Your task to perform on an android device: turn on data saver in the chrome app Image 0: 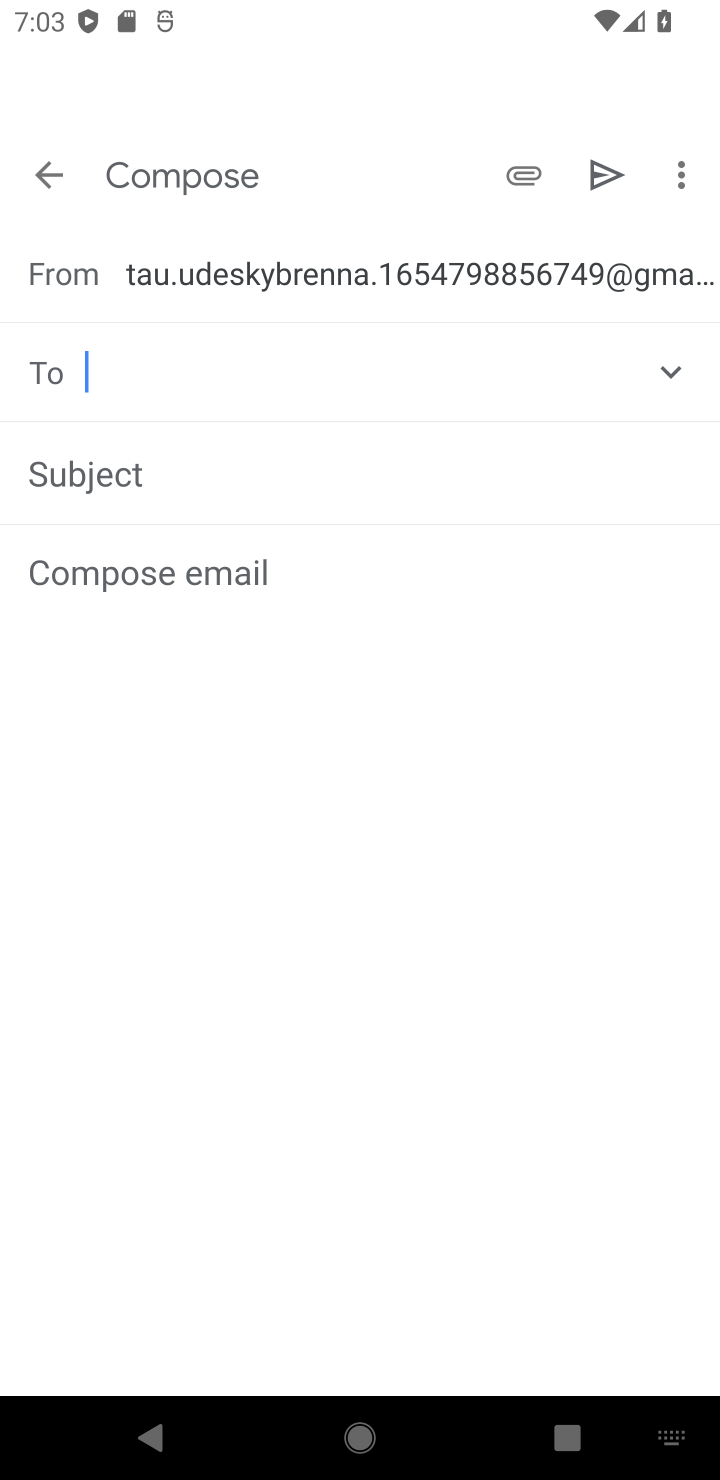
Step 0: task impossible